Your task to perform on an android device: Open the stopwatch Image 0: 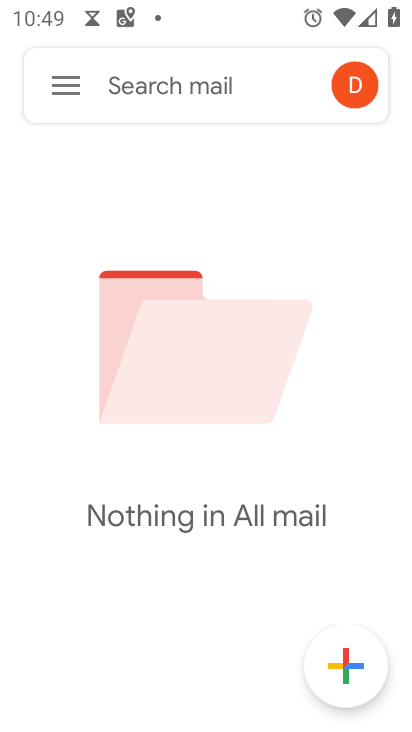
Step 0: press back button
Your task to perform on an android device: Open the stopwatch Image 1: 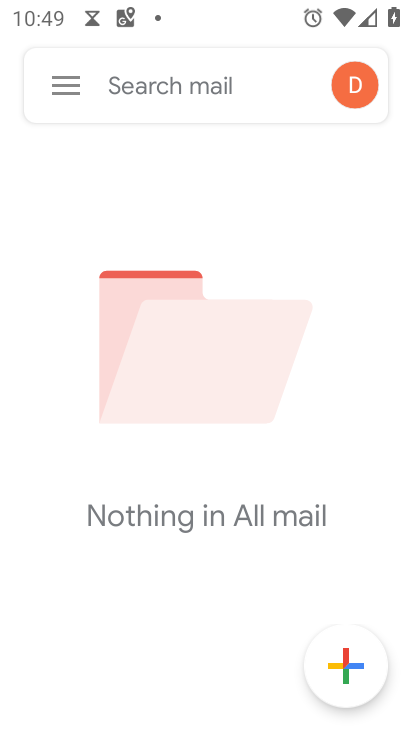
Step 1: press back button
Your task to perform on an android device: Open the stopwatch Image 2: 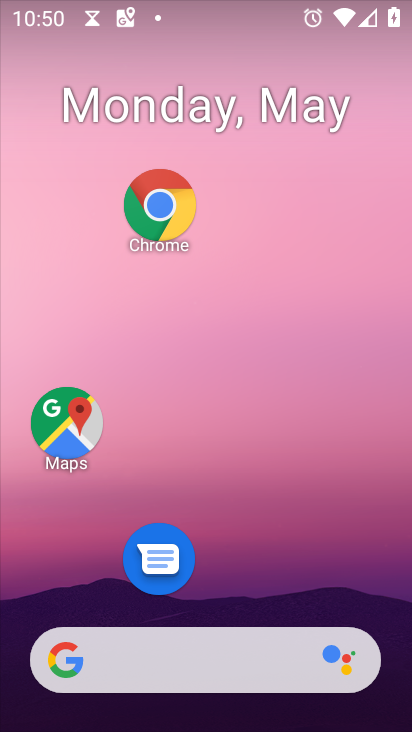
Step 2: drag from (281, 680) to (183, 50)
Your task to perform on an android device: Open the stopwatch Image 3: 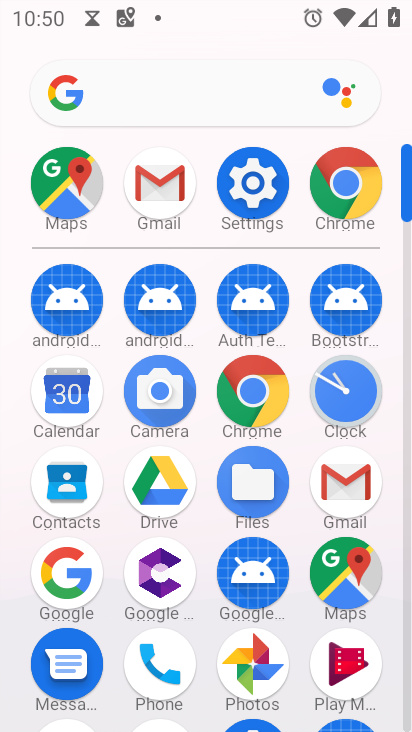
Step 3: click (346, 399)
Your task to perform on an android device: Open the stopwatch Image 4: 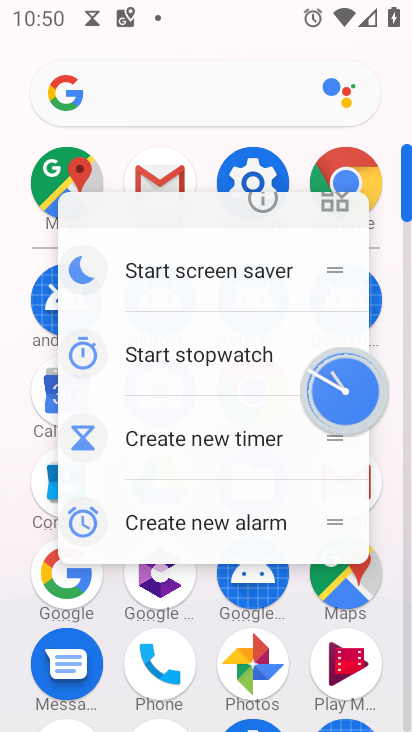
Step 4: click (352, 393)
Your task to perform on an android device: Open the stopwatch Image 5: 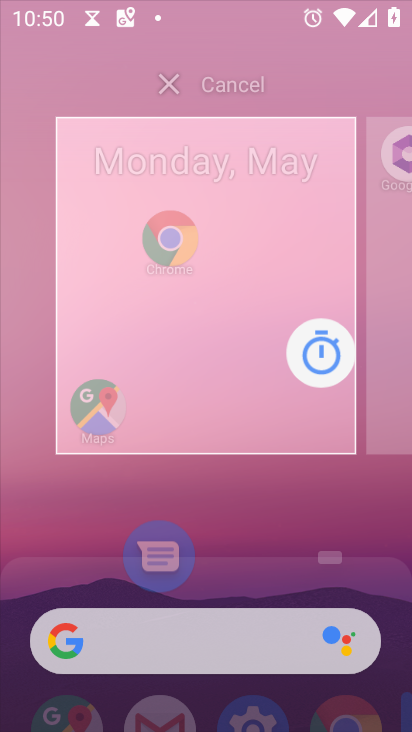
Step 5: click (364, 380)
Your task to perform on an android device: Open the stopwatch Image 6: 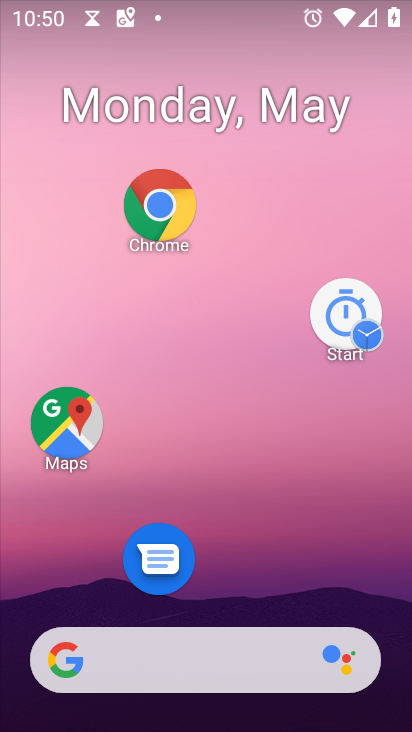
Step 6: drag from (271, 544) to (202, 6)
Your task to perform on an android device: Open the stopwatch Image 7: 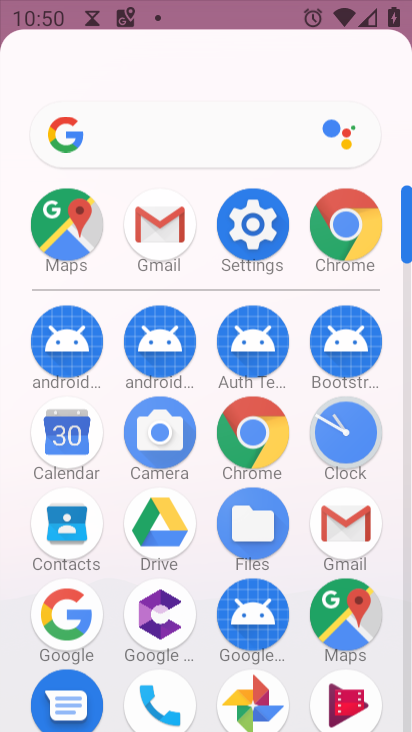
Step 7: drag from (282, 448) to (176, 35)
Your task to perform on an android device: Open the stopwatch Image 8: 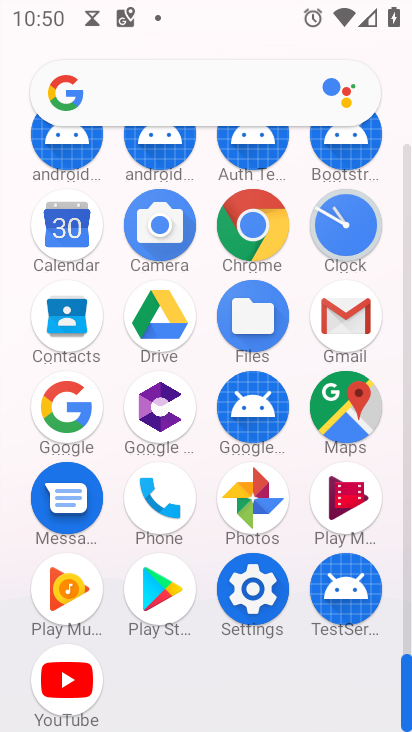
Step 8: click (323, 228)
Your task to perform on an android device: Open the stopwatch Image 9: 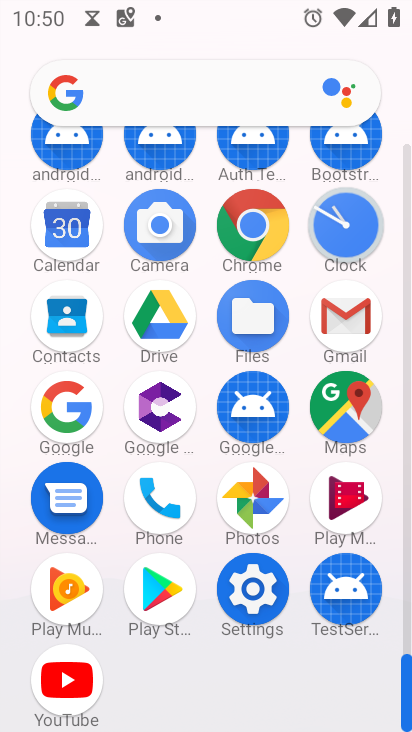
Step 9: click (333, 226)
Your task to perform on an android device: Open the stopwatch Image 10: 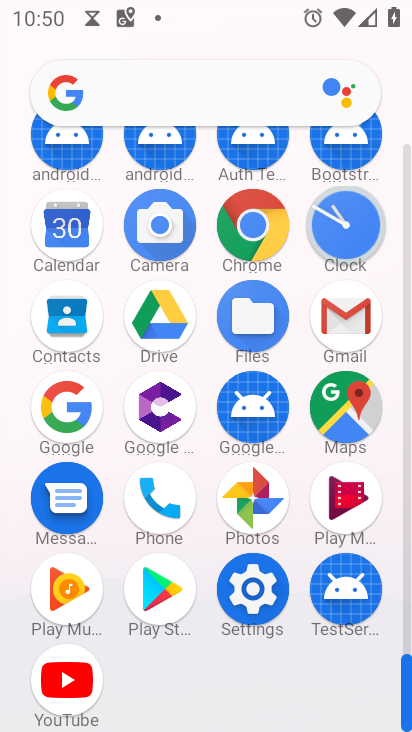
Step 10: click (333, 226)
Your task to perform on an android device: Open the stopwatch Image 11: 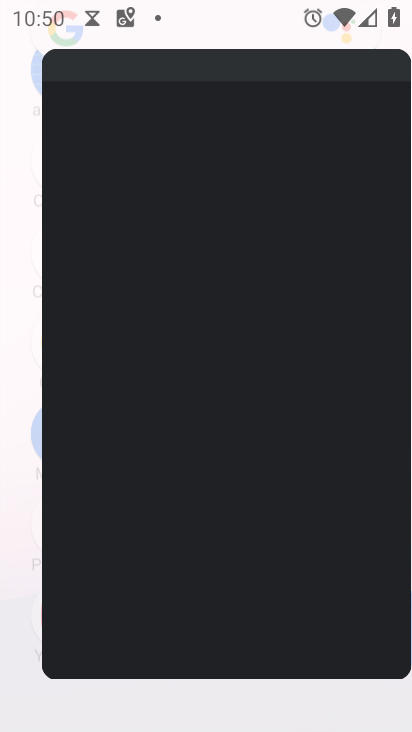
Step 11: click (334, 226)
Your task to perform on an android device: Open the stopwatch Image 12: 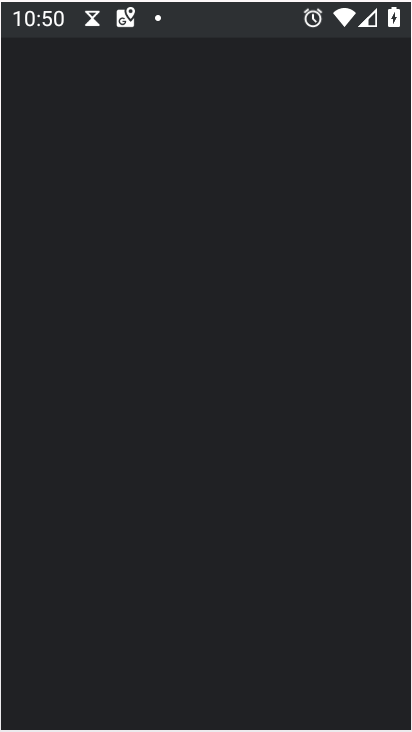
Step 12: click (334, 226)
Your task to perform on an android device: Open the stopwatch Image 13: 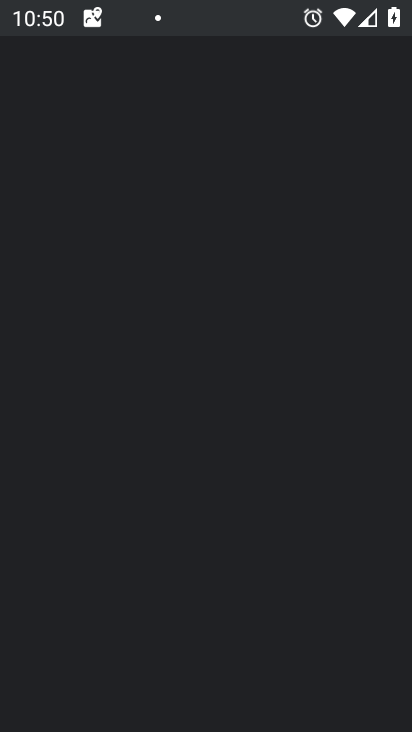
Step 13: click (334, 226)
Your task to perform on an android device: Open the stopwatch Image 14: 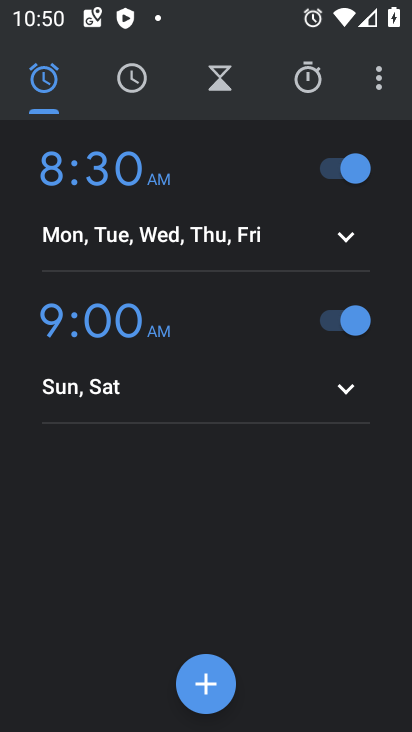
Step 14: click (312, 78)
Your task to perform on an android device: Open the stopwatch Image 15: 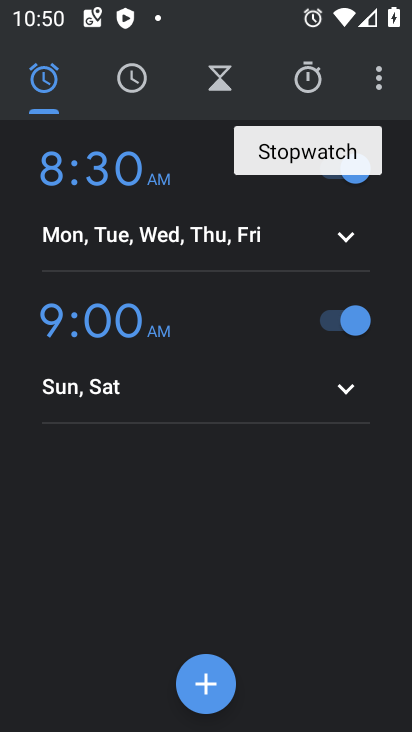
Step 15: click (311, 78)
Your task to perform on an android device: Open the stopwatch Image 16: 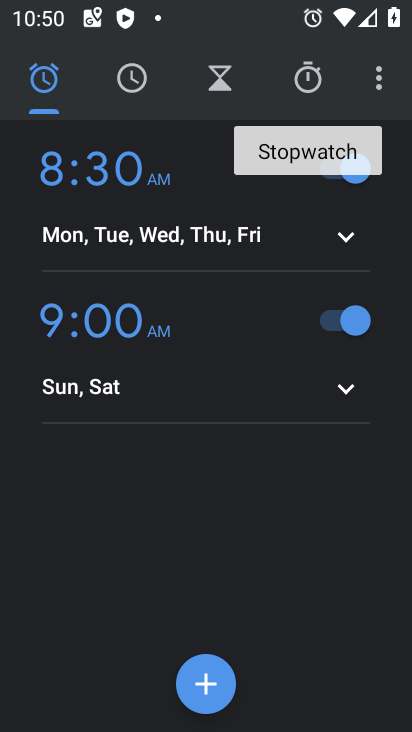
Step 16: click (311, 78)
Your task to perform on an android device: Open the stopwatch Image 17: 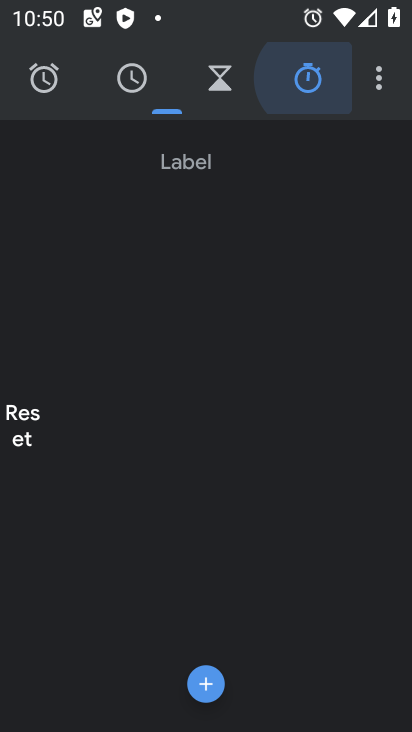
Step 17: click (311, 78)
Your task to perform on an android device: Open the stopwatch Image 18: 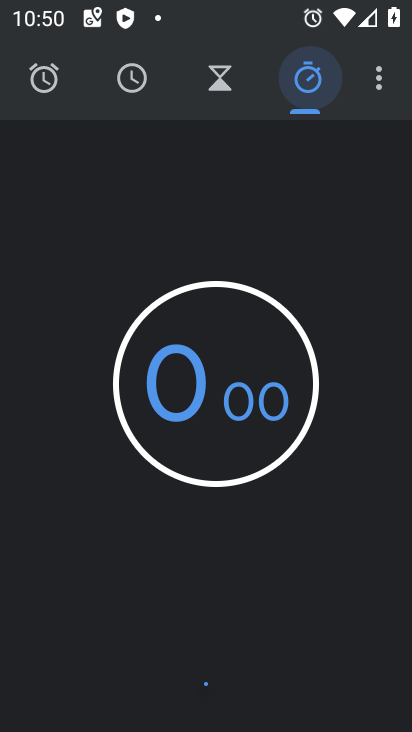
Step 18: click (311, 78)
Your task to perform on an android device: Open the stopwatch Image 19: 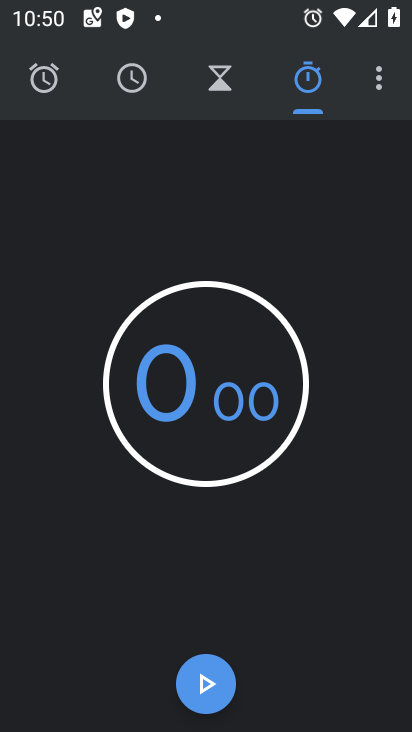
Step 19: click (207, 686)
Your task to perform on an android device: Open the stopwatch Image 20: 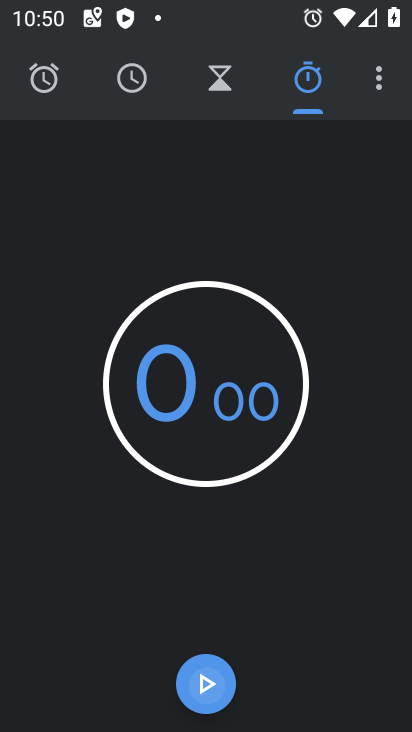
Step 20: click (207, 687)
Your task to perform on an android device: Open the stopwatch Image 21: 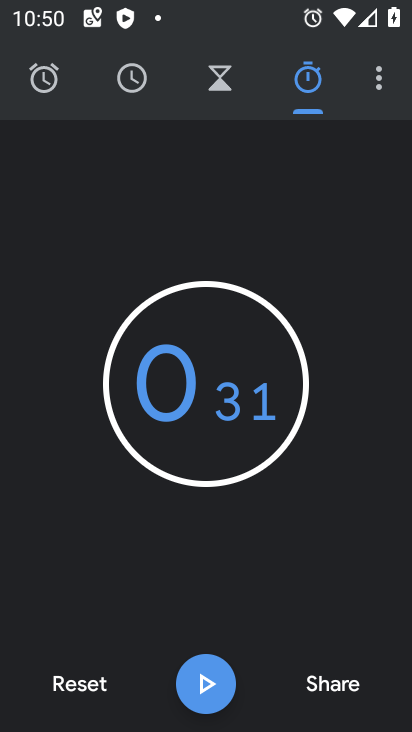
Step 21: click (204, 689)
Your task to perform on an android device: Open the stopwatch Image 22: 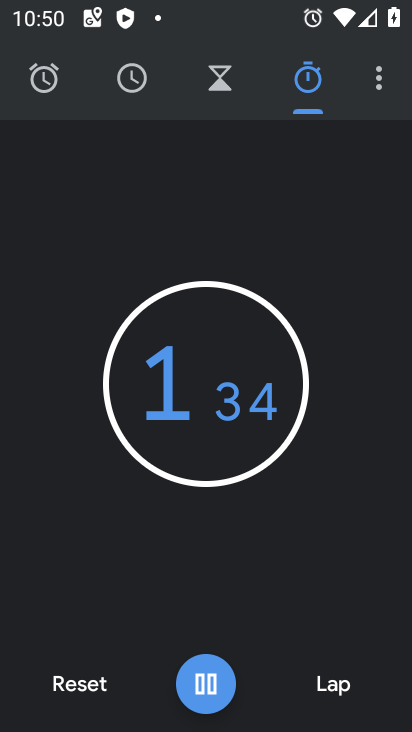
Step 22: click (204, 688)
Your task to perform on an android device: Open the stopwatch Image 23: 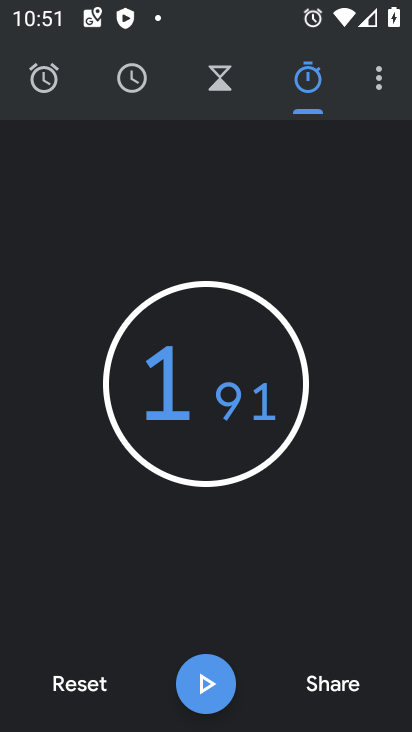
Step 23: task complete